Your task to perform on an android device: turn smart compose on in the gmail app Image 0: 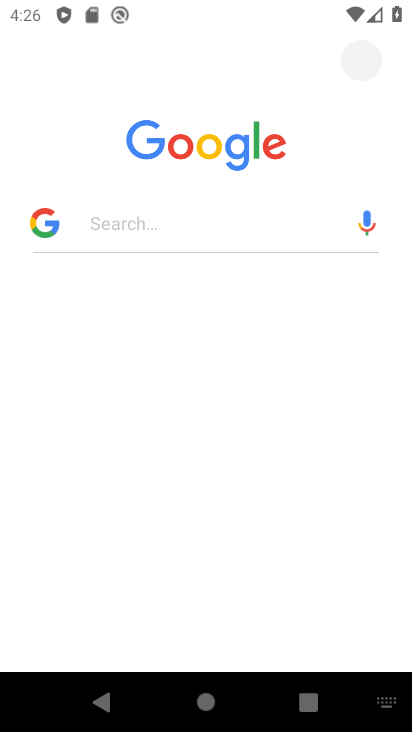
Step 0: press home button
Your task to perform on an android device: turn smart compose on in the gmail app Image 1: 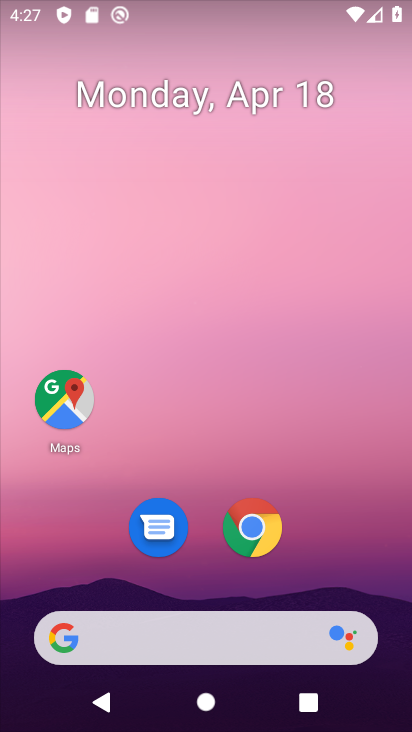
Step 1: drag from (215, 581) to (228, 94)
Your task to perform on an android device: turn smart compose on in the gmail app Image 2: 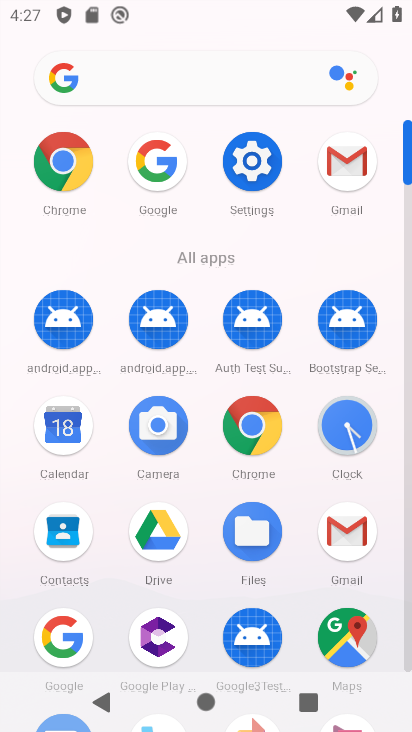
Step 2: click (346, 151)
Your task to perform on an android device: turn smart compose on in the gmail app Image 3: 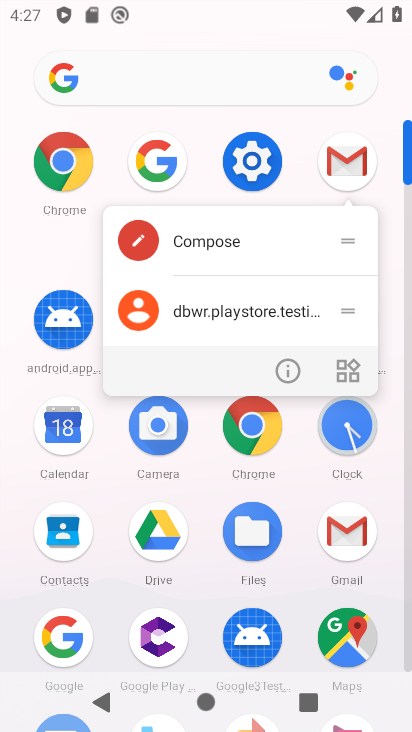
Step 3: click (346, 151)
Your task to perform on an android device: turn smart compose on in the gmail app Image 4: 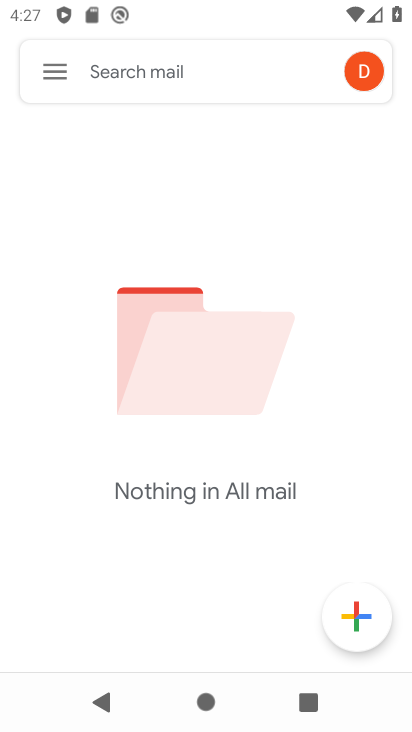
Step 4: click (50, 65)
Your task to perform on an android device: turn smart compose on in the gmail app Image 5: 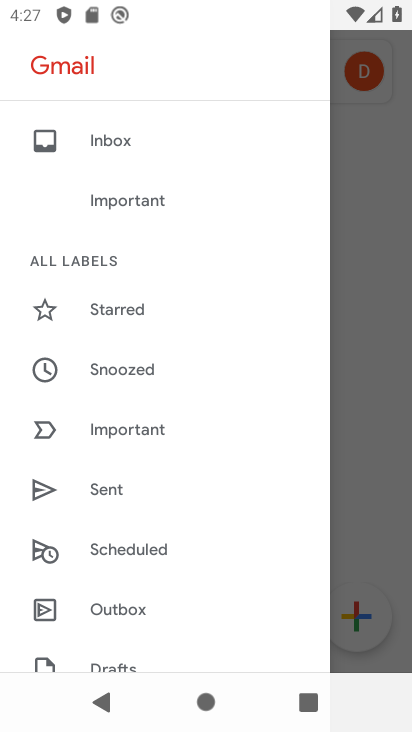
Step 5: drag from (162, 623) to (200, 22)
Your task to perform on an android device: turn smart compose on in the gmail app Image 6: 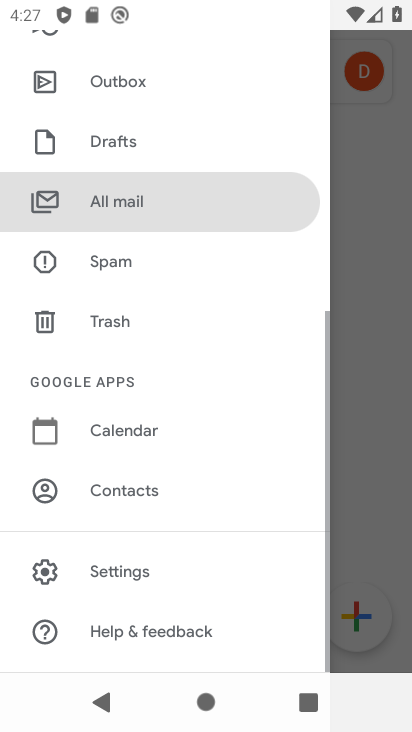
Step 6: click (158, 562)
Your task to perform on an android device: turn smart compose on in the gmail app Image 7: 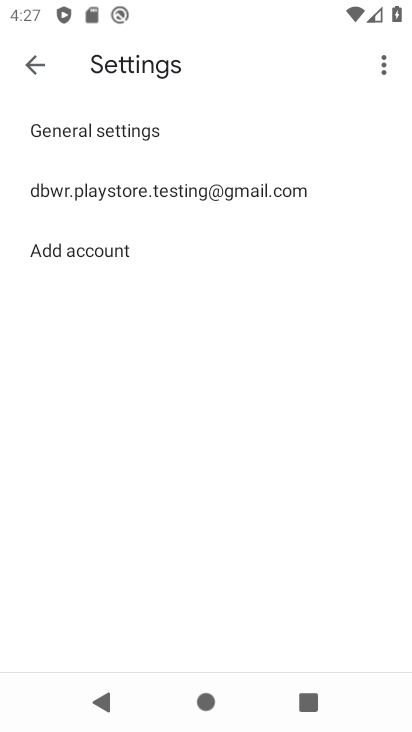
Step 7: click (215, 188)
Your task to perform on an android device: turn smart compose on in the gmail app Image 8: 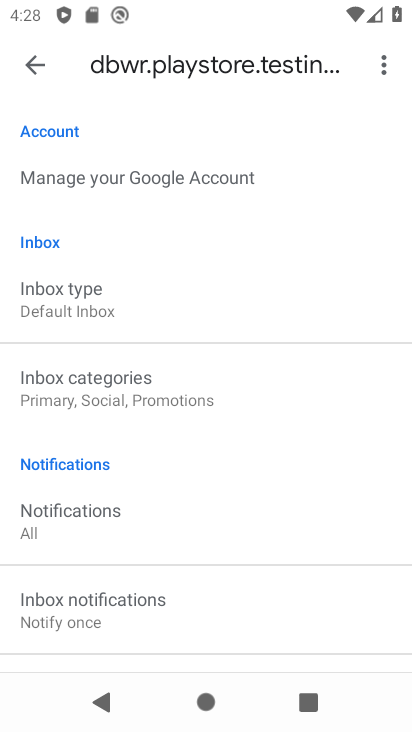
Step 8: task complete